Your task to perform on an android device: turn off picture-in-picture Image 0: 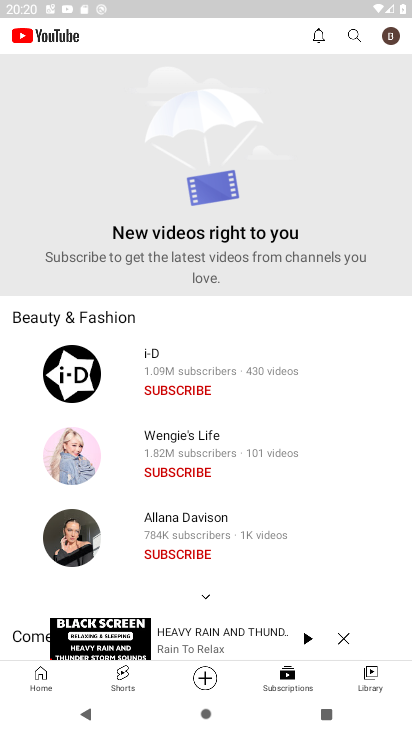
Step 0: press home button
Your task to perform on an android device: turn off picture-in-picture Image 1: 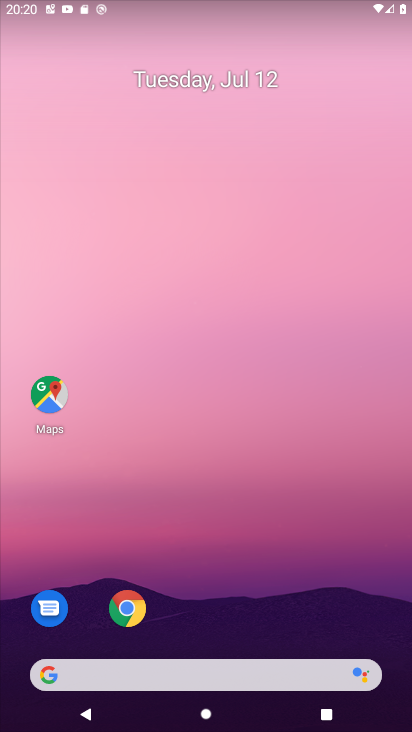
Step 1: click (130, 603)
Your task to perform on an android device: turn off picture-in-picture Image 2: 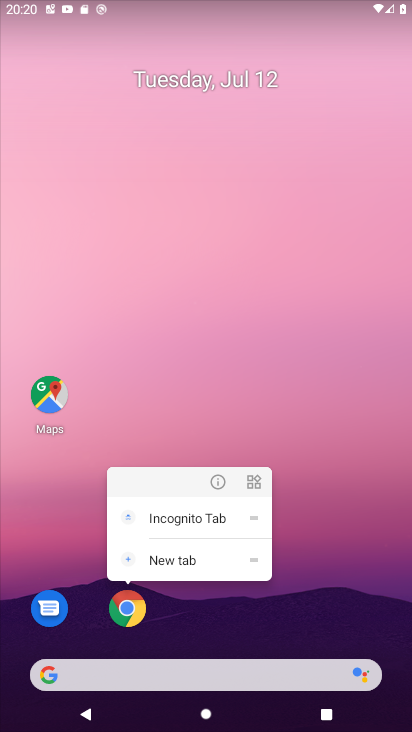
Step 2: click (217, 483)
Your task to perform on an android device: turn off picture-in-picture Image 3: 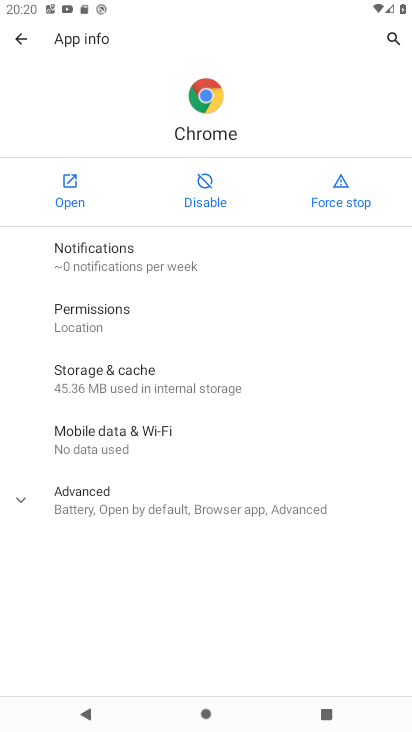
Step 3: click (94, 492)
Your task to perform on an android device: turn off picture-in-picture Image 4: 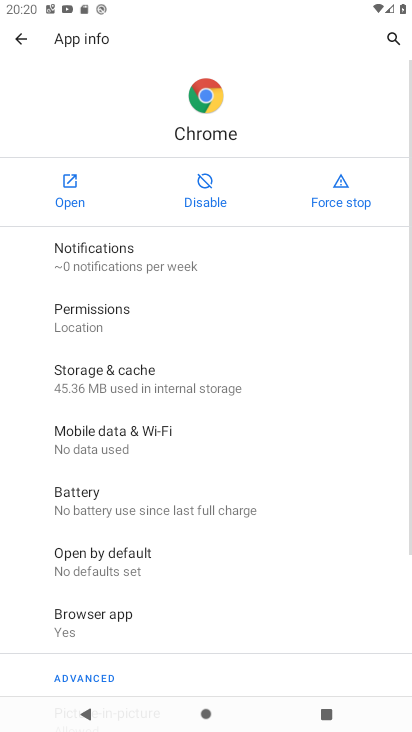
Step 4: drag from (165, 626) to (284, 283)
Your task to perform on an android device: turn off picture-in-picture Image 5: 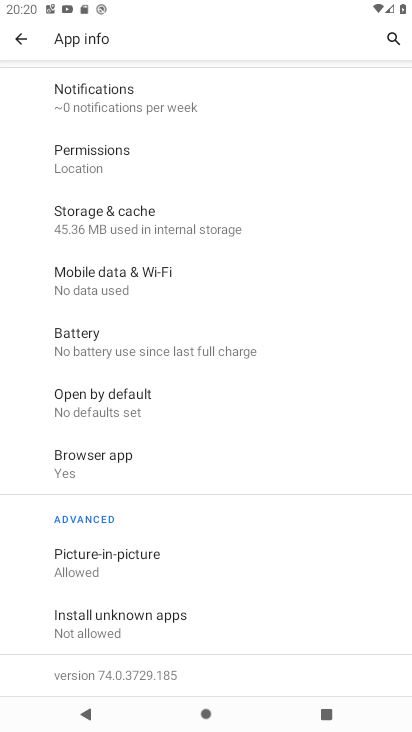
Step 5: click (79, 561)
Your task to perform on an android device: turn off picture-in-picture Image 6: 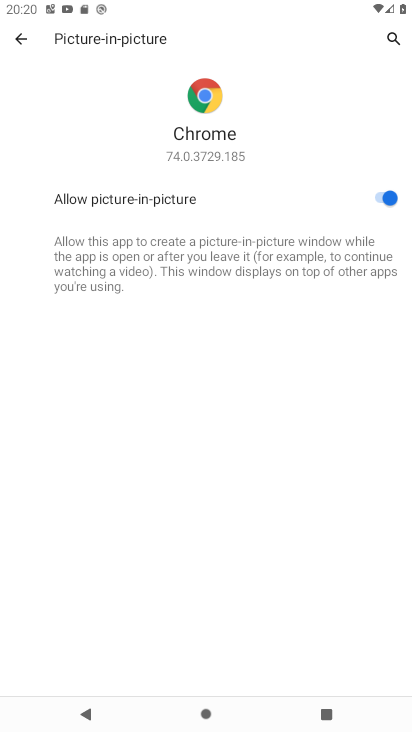
Step 6: click (378, 193)
Your task to perform on an android device: turn off picture-in-picture Image 7: 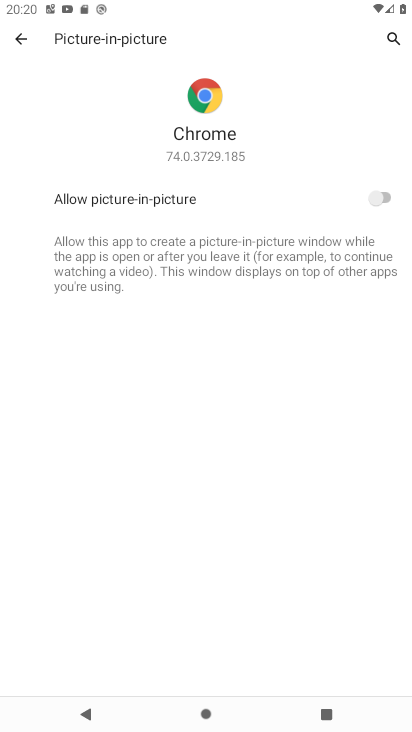
Step 7: task complete